Your task to perform on an android device: Open the calendar app, open the side menu, and click the "Day" option Image 0: 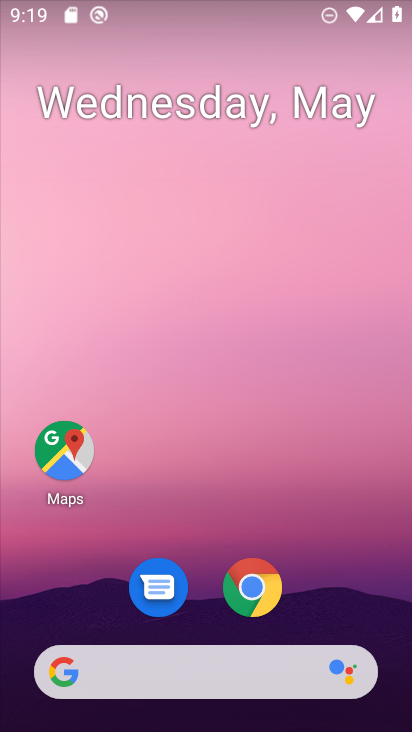
Step 0: drag from (187, 729) to (159, 77)
Your task to perform on an android device: Open the calendar app, open the side menu, and click the "Day" option Image 1: 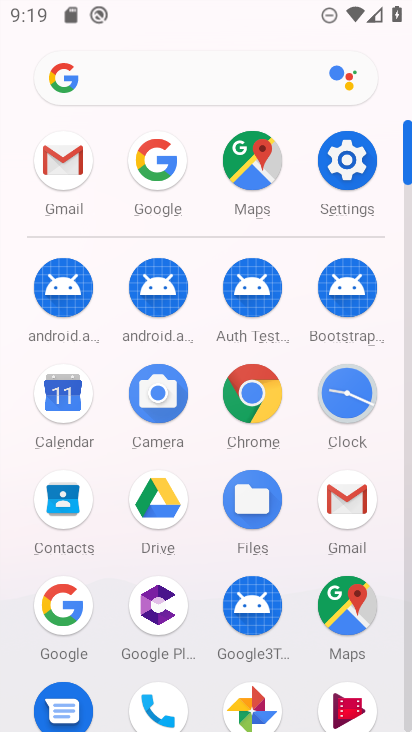
Step 1: click (70, 402)
Your task to perform on an android device: Open the calendar app, open the side menu, and click the "Day" option Image 2: 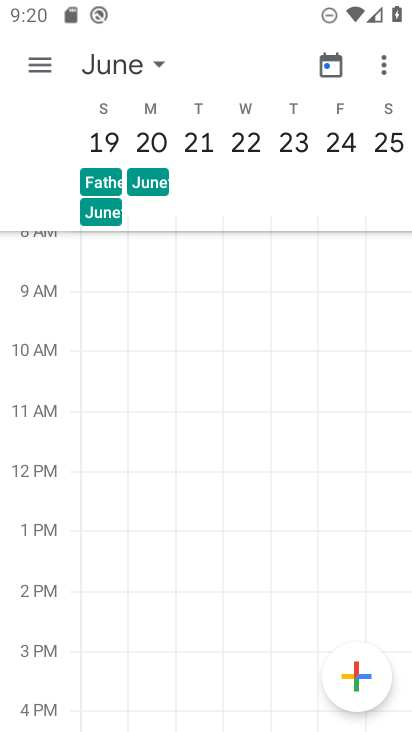
Step 2: click (36, 58)
Your task to perform on an android device: Open the calendar app, open the side menu, and click the "Day" option Image 3: 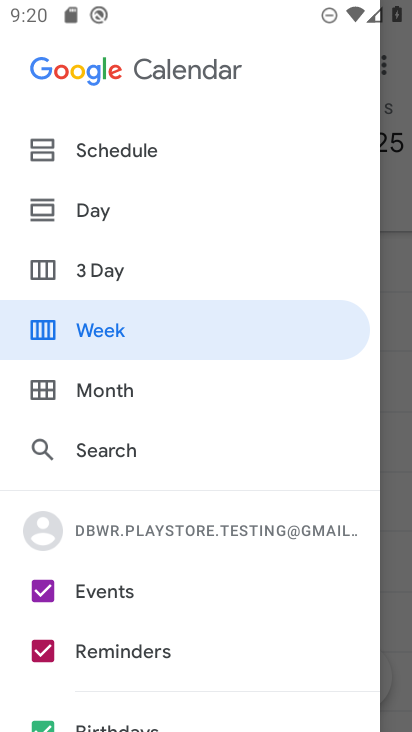
Step 3: click (91, 207)
Your task to perform on an android device: Open the calendar app, open the side menu, and click the "Day" option Image 4: 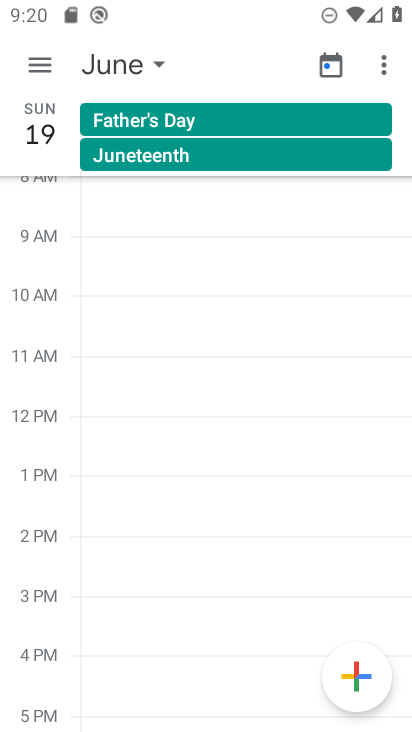
Step 4: task complete